Your task to perform on an android device: show emergency info Image 0: 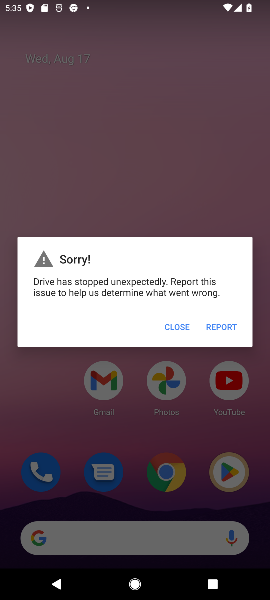
Step 0: click (185, 328)
Your task to perform on an android device: show emergency info Image 1: 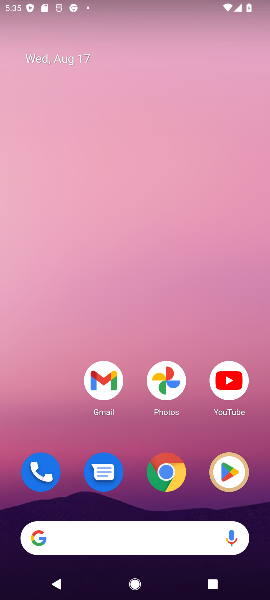
Step 1: drag from (147, 428) to (128, 100)
Your task to perform on an android device: show emergency info Image 2: 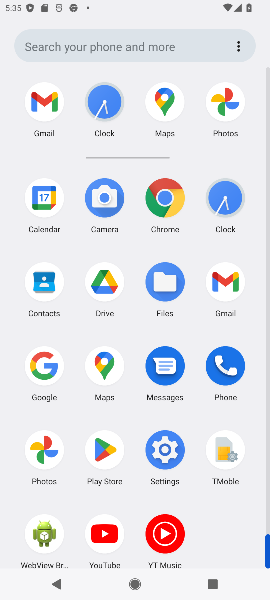
Step 2: click (157, 460)
Your task to perform on an android device: show emergency info Image 3: 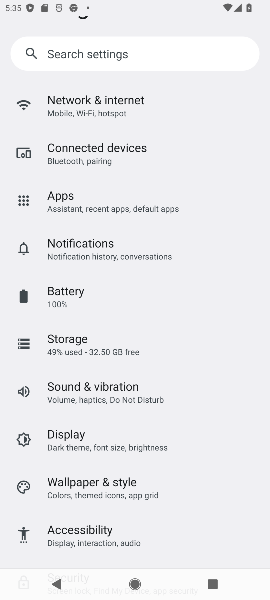
Step 3: drag from (91, 515) to (129, 200)
Your task to perform on an android device: show emergency info Image 4: 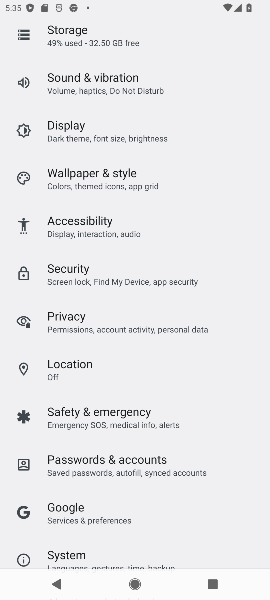
Step 4: drag from (133, 530) to (140, 212)
Your task to perform on an android device: show emergency info Image 5: 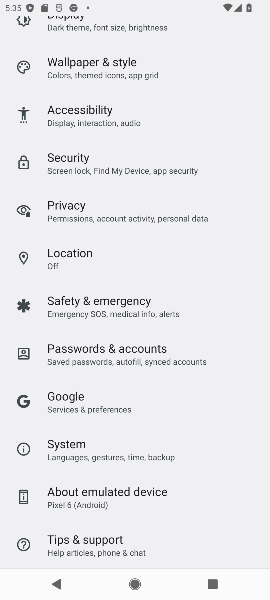
Step 5: click (94, 489)
Your task to perform on an android device: show emergency info Image 6: 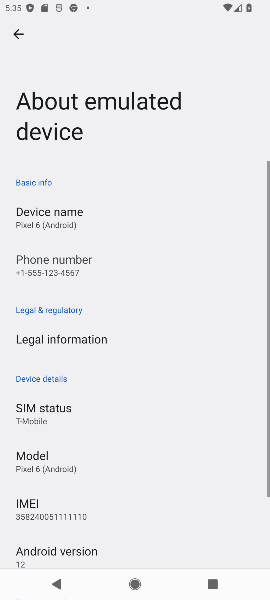
Step 6: task complete